Your task to perform on an android device: turn off data saver in the chrome app Image 0: 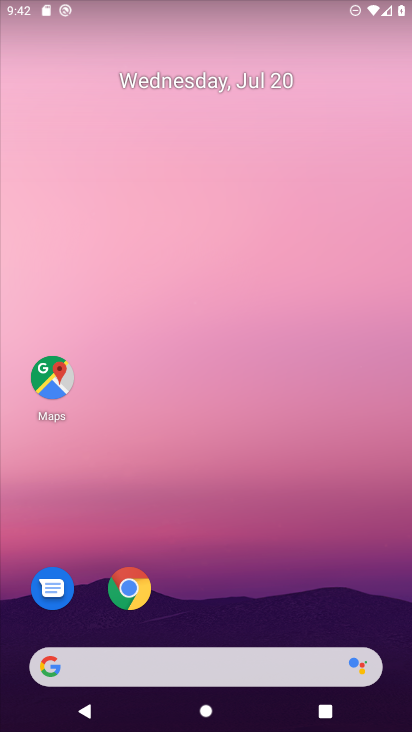
Step 0: click (138, 579)
Your task to perform on an android device: turn off data saver in the chrome app Image 1: 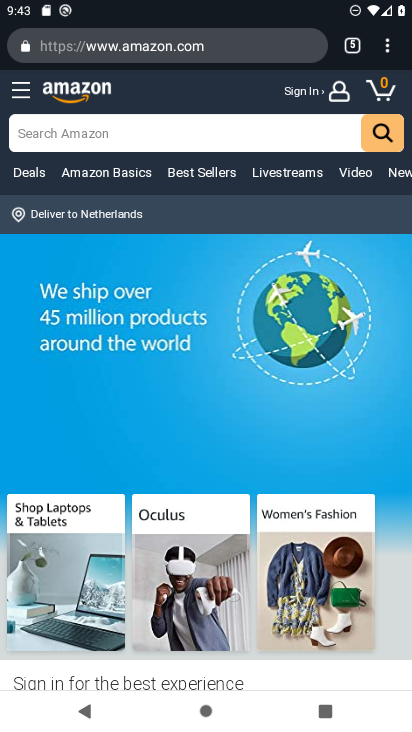
Step 1: click (401, 51)
Your task to perform on an android device: turn off data saver in the chrome app Image 2: 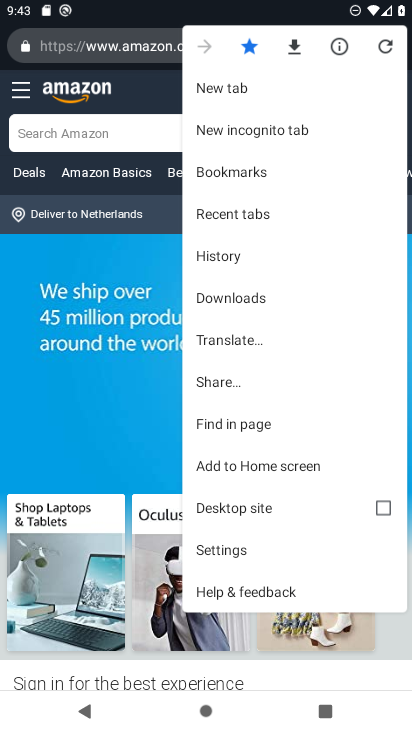
Step 2: click (238, 548)
Your task to perform on an android device: turn off data saver in the chrome app Image 3: 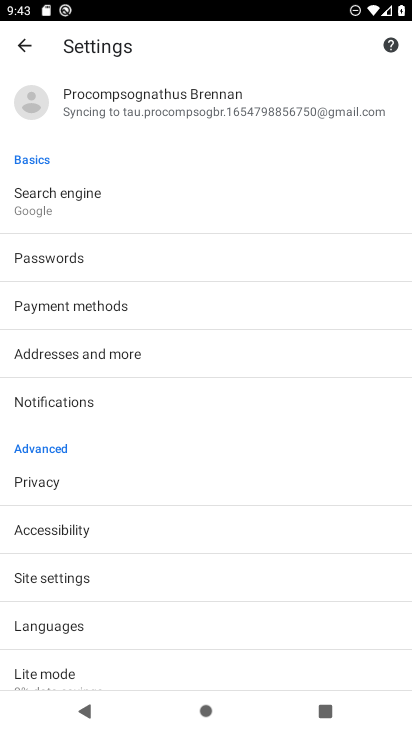
Step 3: click (77, 668)
Your task to perform on an android device: turn off data saver in the chrome app Image 4: 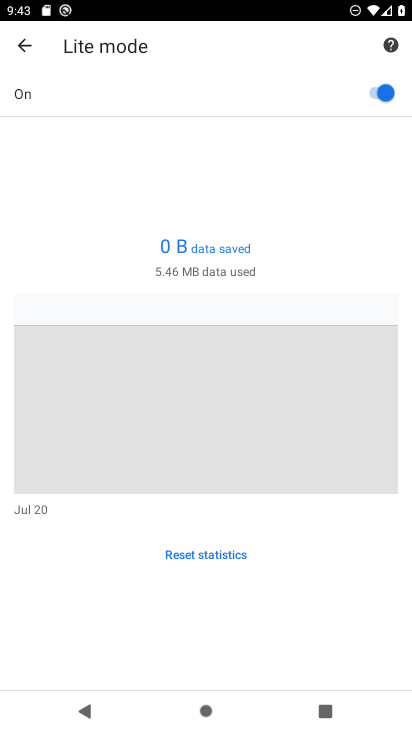
Step 4: click (379, 91)
Your task to perform on an android device: turn off data saver in the chrome app Image 5: 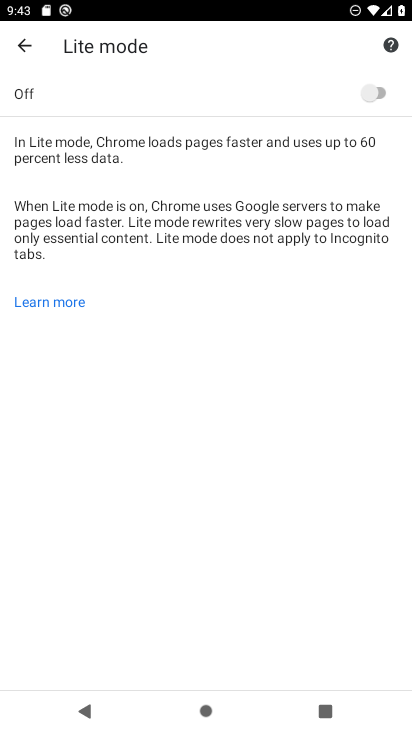
Step 5: task complete